Your task to perform on an android device: open app "Facebook Lite" Image 0: 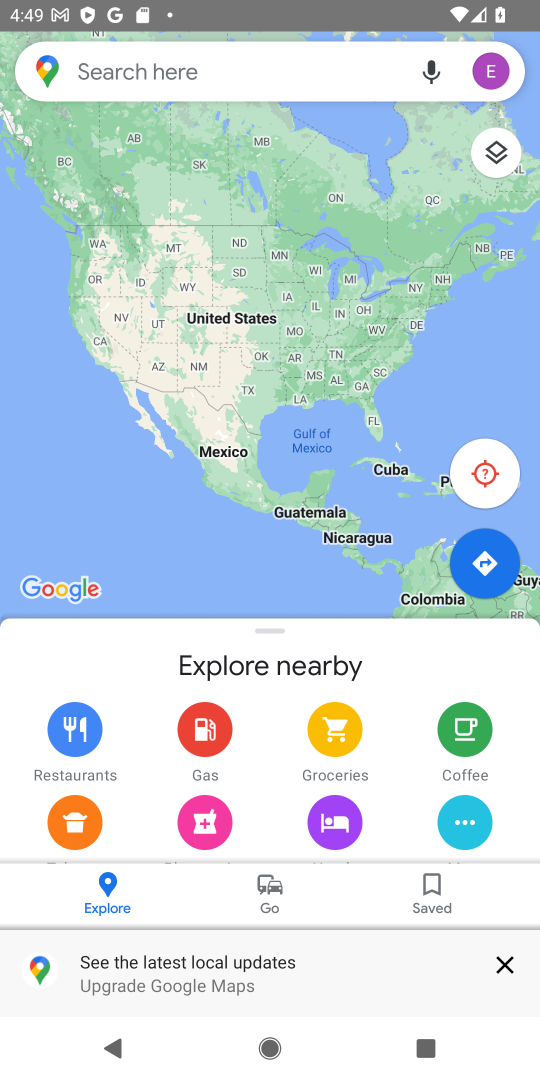
Step 0: press home button
Your task to perform on an android device: open app "Facebook Lite" Image 1: 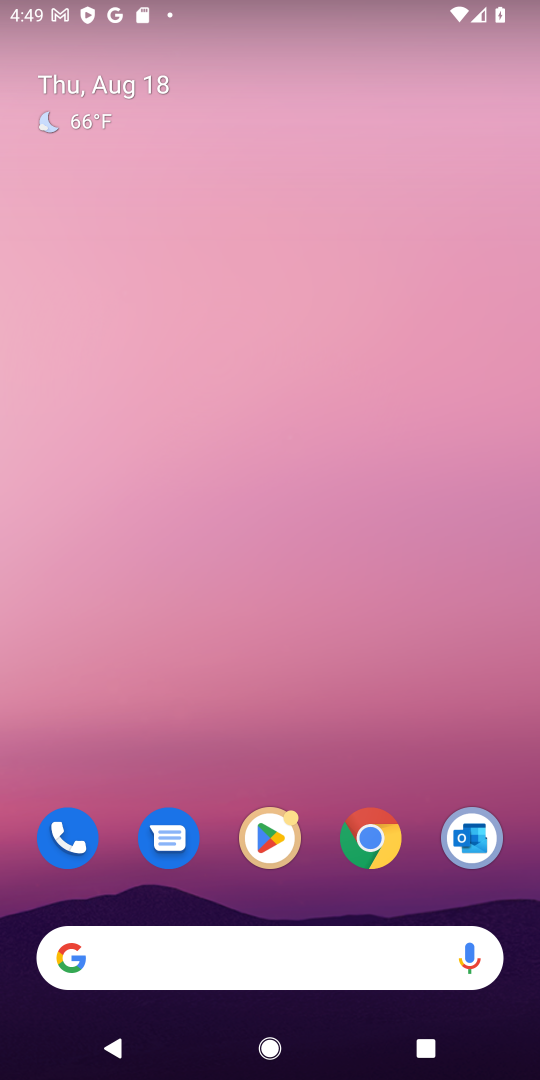
Step 1: drag from (217, 954) to (299, 171)
Your task to perform on an android device: open app "Facebook Lite" Image 2: 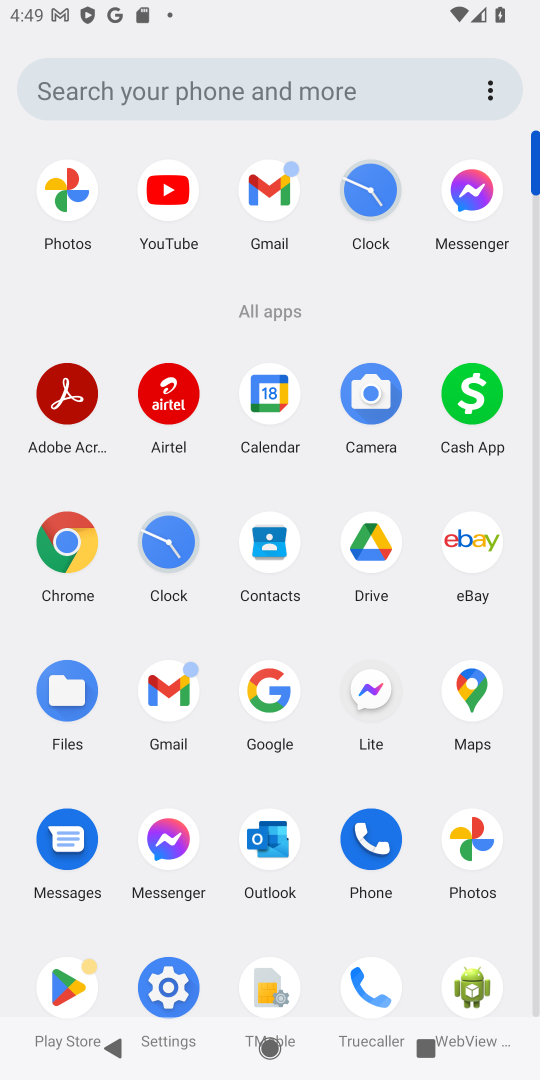
Step 2: click (66, 998)
Your task to perform on an android device: open app "Facebook Lite" Image 3: 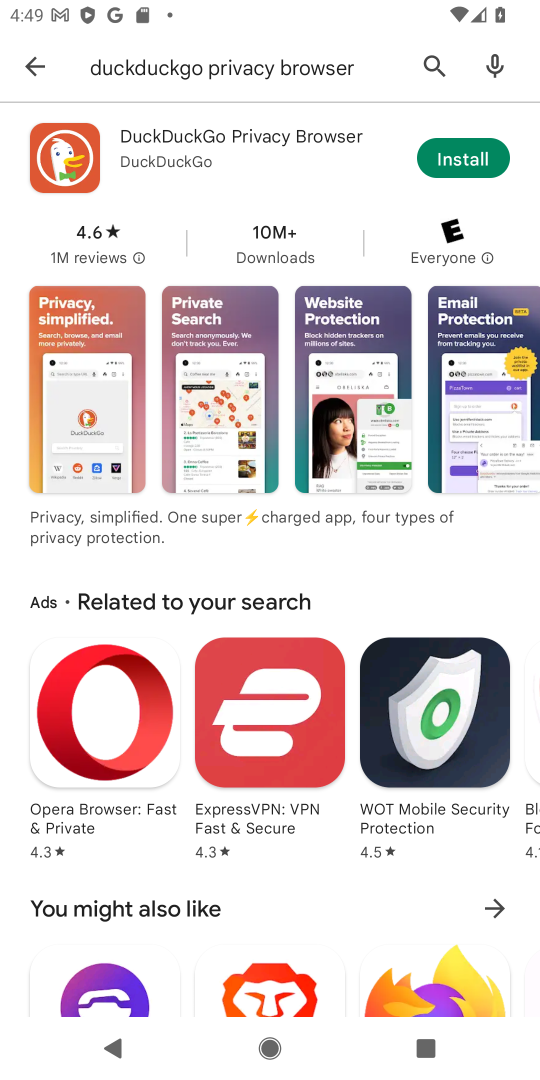
Step 3: click (441, 68)
Your task to perform on an android device: open app "Facebook Lite" Image 4: 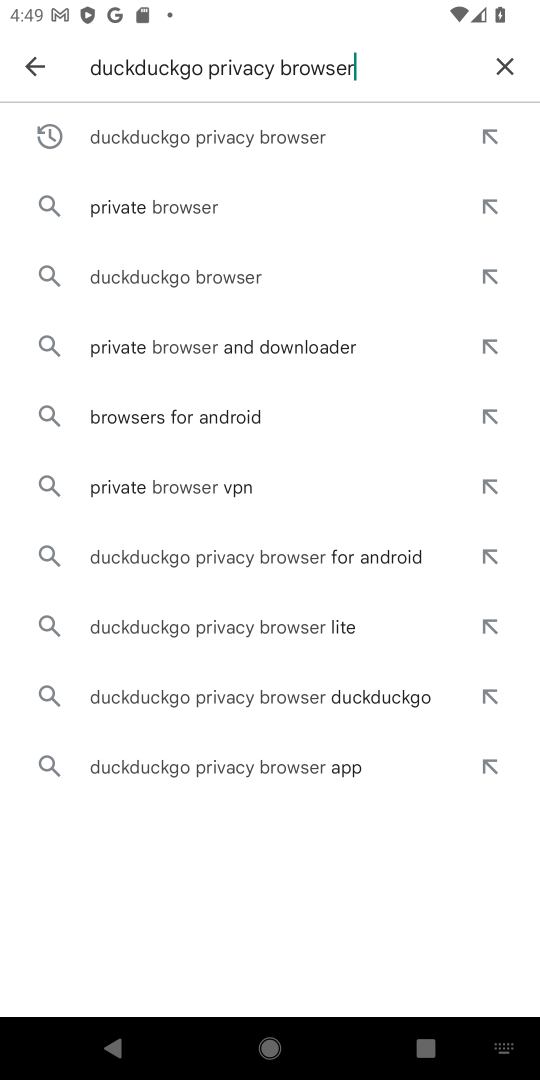
Step 4: press back button
Your task to perform on an android device: open app "Facebook Lite" Image 5: 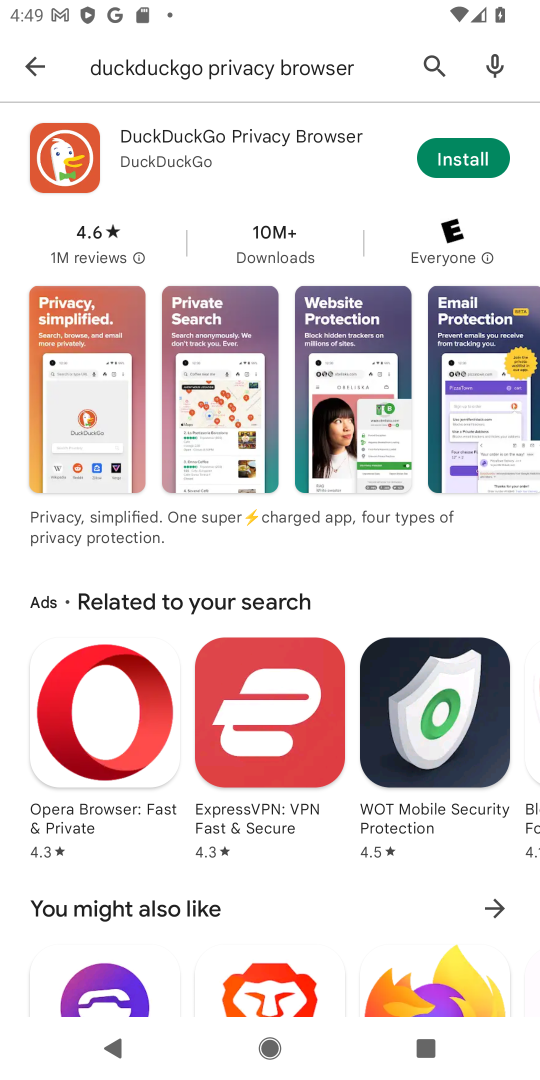
Step 5: press back button
Your task to perform on an android device: open app "Facebook Lite" Image 6: 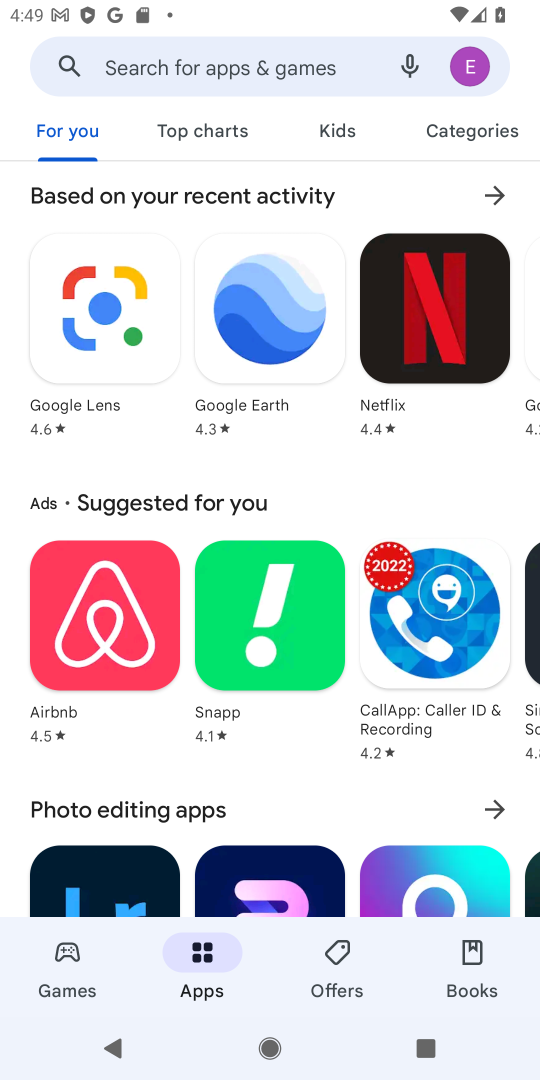
Step 6: click (240, 63)
Your task to perform on an android device: open app "Facebook Lite" Image 7: 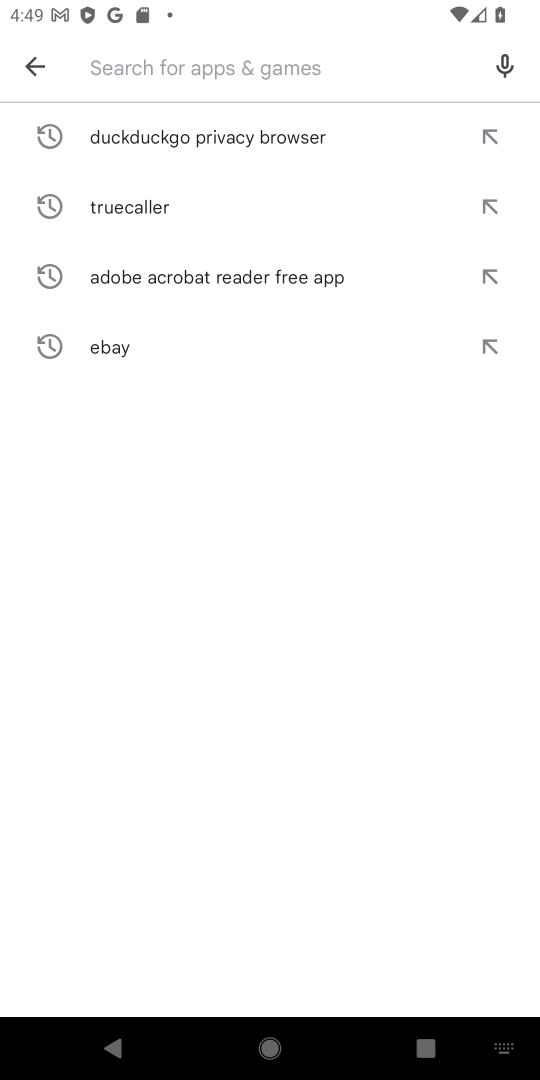
Step 7: type "Facebook lite"
Your task to perform on an android device: open app "Facebook Lite" Image 8: 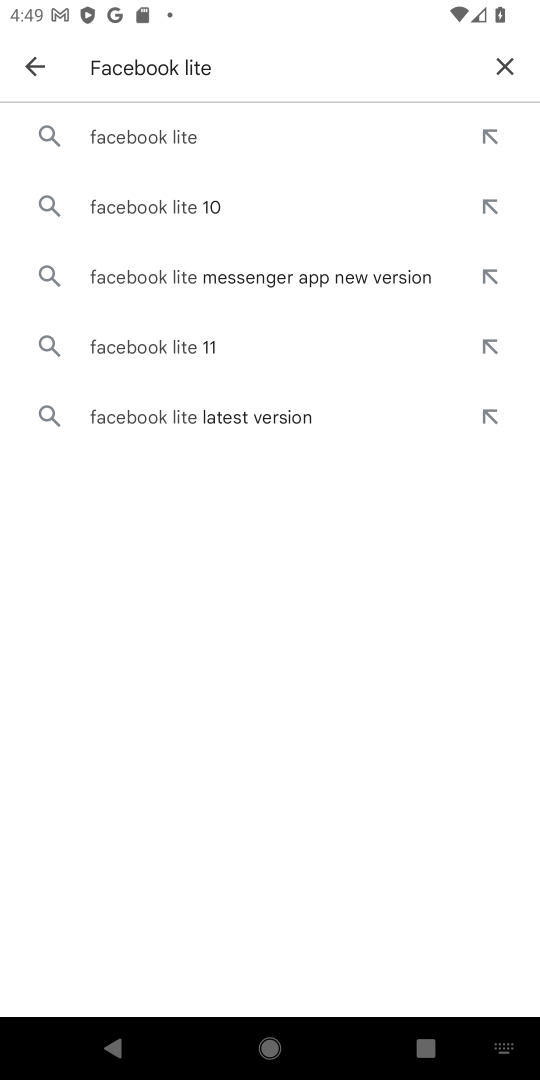
Step 8: click (180, 138)
Your task to perform on an android device: open app "Facebook Lite" Image 9: 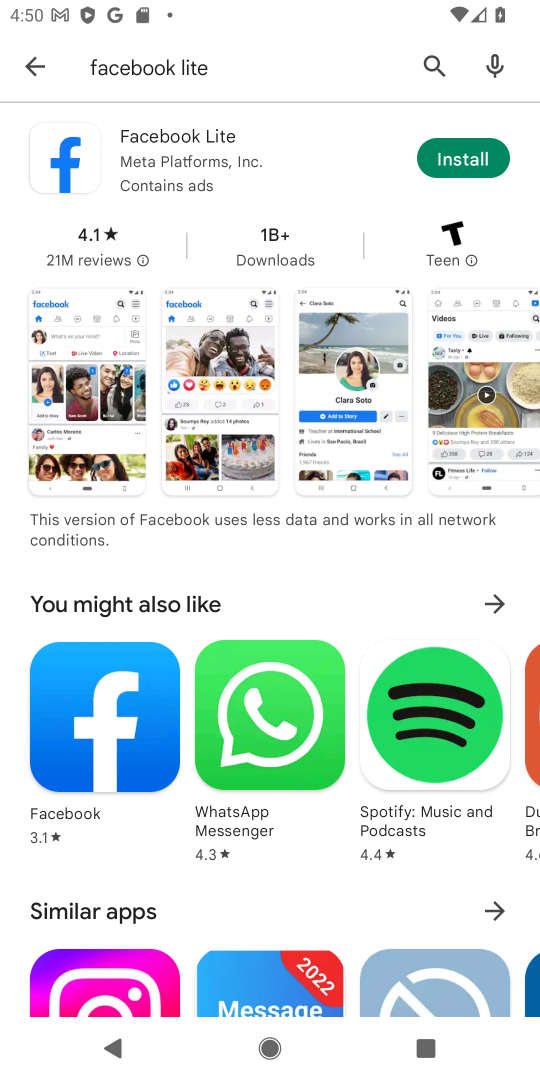
Step 9: task complete